Your task to perform on an android device: Go to Maps Image 0: 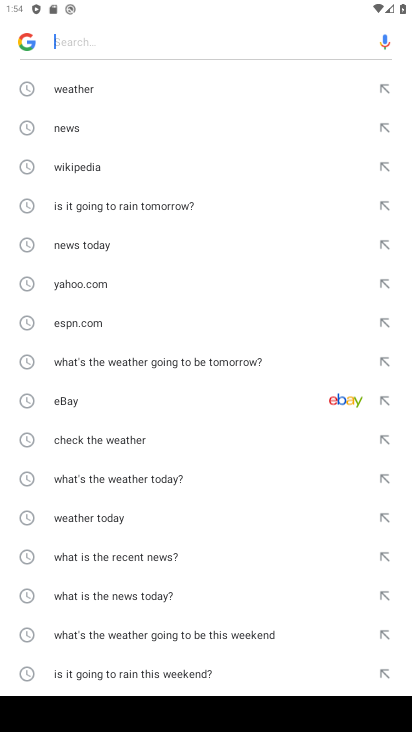
Step 0: press home button
Your task to perform on an android device: Go to Maps Image 1: 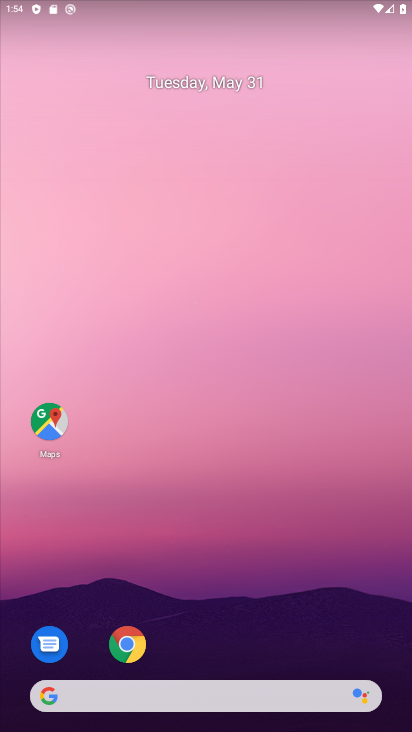
Step 1: click (45, 414)
Your task to perform on an android device: Go to Maps Image 2: 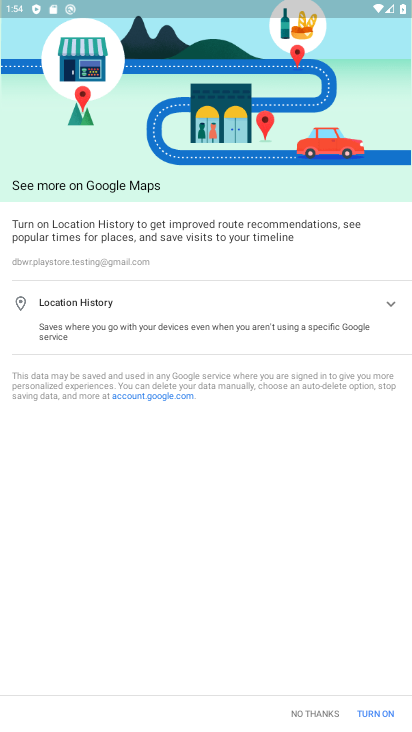
Step 2: click (290, 719)
Your task to perform on an android device: Go to Maps Image 3: 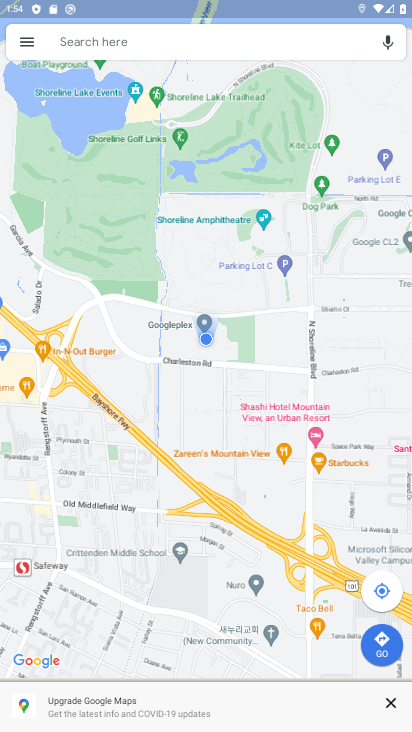
Step 3: task complete